Your task to perform on an android device: Google the capital of Venezuela Image 0: 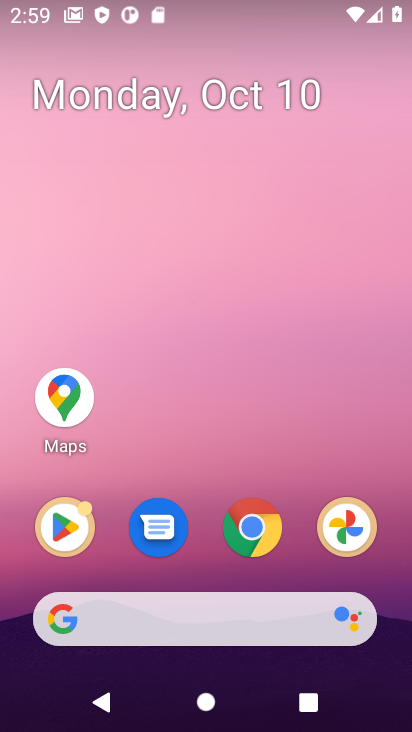
Step 0: press home button
Your task to perform on an android device: Google the capital of Venezuela Image 1: 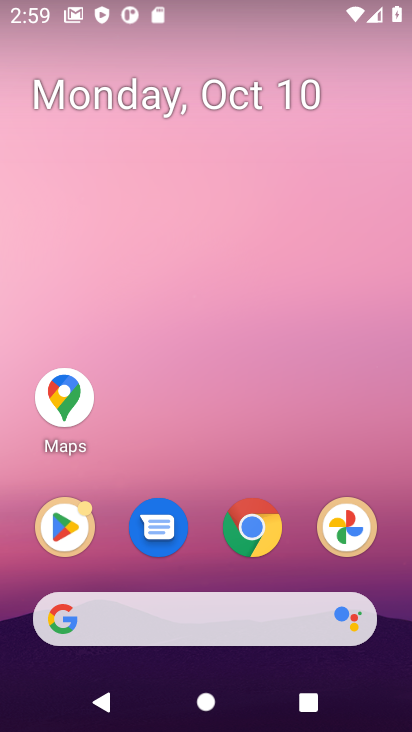
Step 1: click (269, 617)
Your task to perform on an android device: Google the capital of Venezuela Image 2: 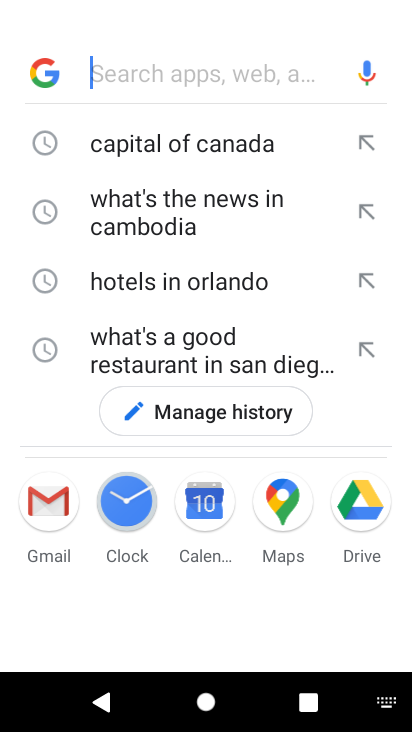
Step 2: type "capital of Venezuela"
Your task to perform on an android device: Google the capital of Venezuela Image 3: 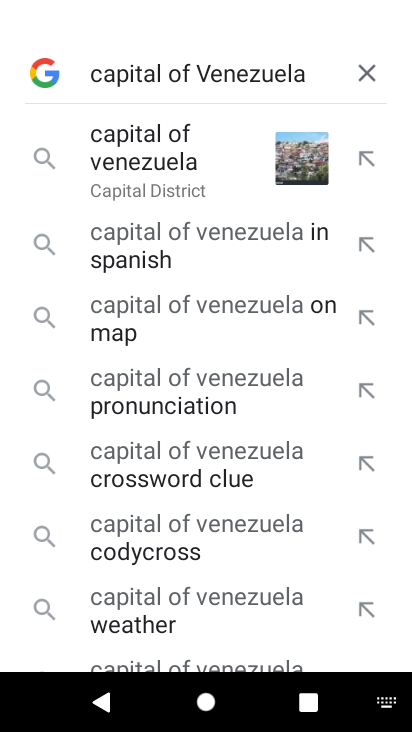
Step 3: press enter
Your task to perform on an android device: Google the capital of Venezuela Image 4: 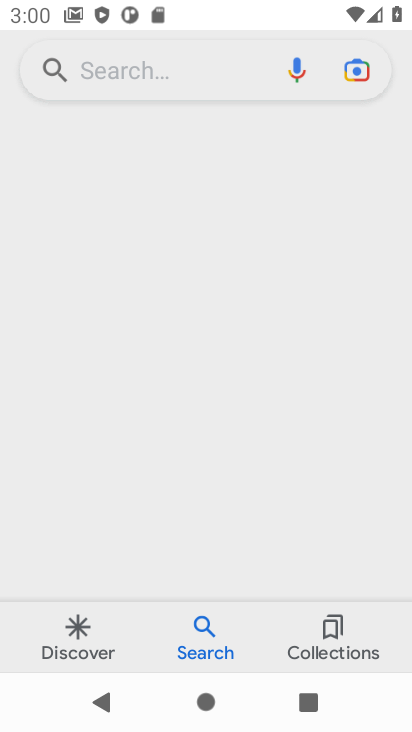
Step 4: click (211, 68)
Your task to perform on an android device: Google the capital of Venezuela Image 5: 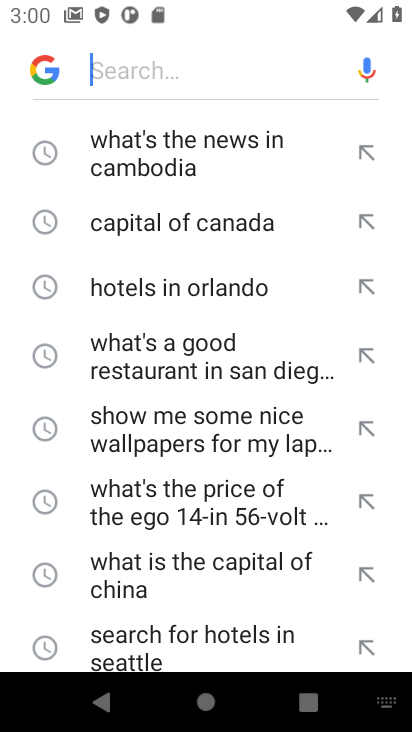
Step 5: type "capital of Venezuela"
Your task to perform on an android device: Google the capital of Venezuela Image 6: 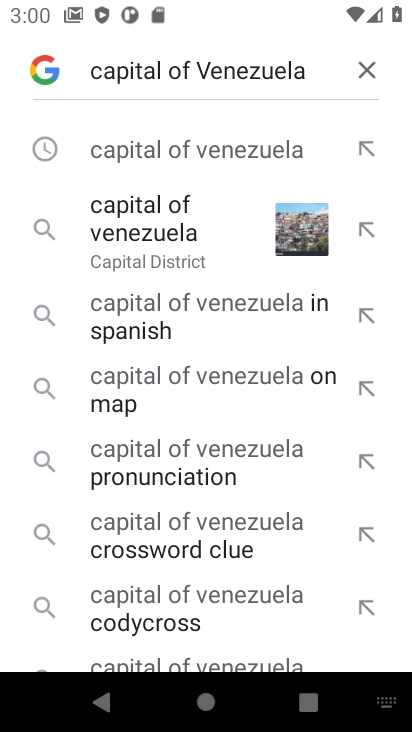
Step 6: press enter
Your task to perform on an android device: Google the capital of Venezuela Image 7: 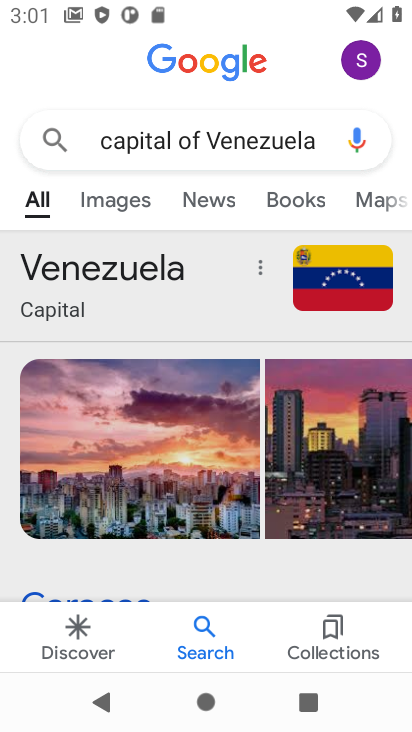
Step 7: task complete